Your task to perform on an android device: open a bookmark in the chrome app Image 0: 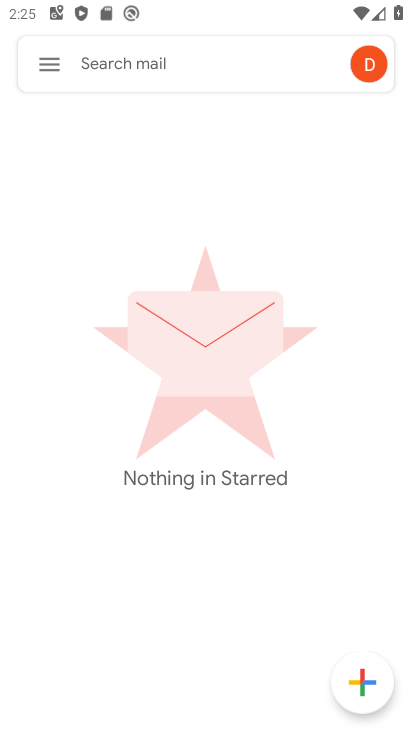
Step 0: press home button
Your task to perform on an android device: open a bookmark in the chrome app Image 1: 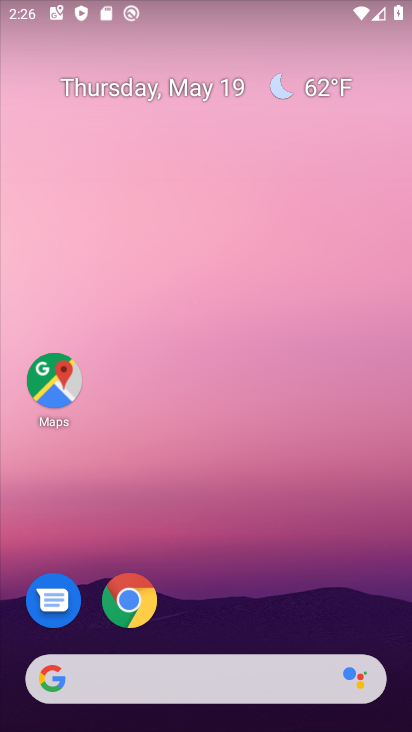
Step 1: click (125, 595)
Your task to perform on an android device: open a bookmark in the chrome app Image 2: 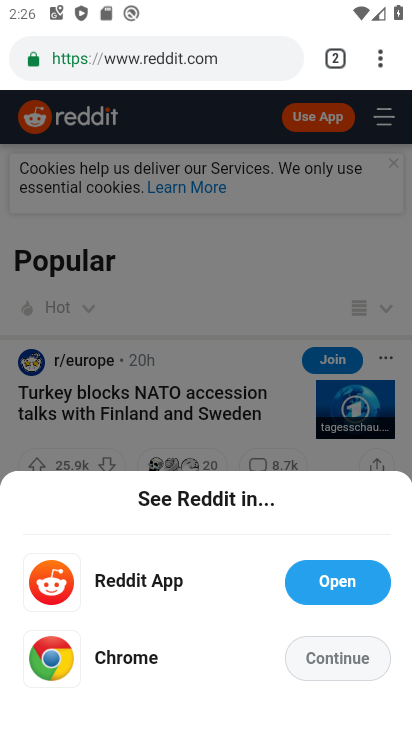
Step 2: click (376, 63)
Your task to perform on an android device: open a bookmark in the chrome app Image 3: 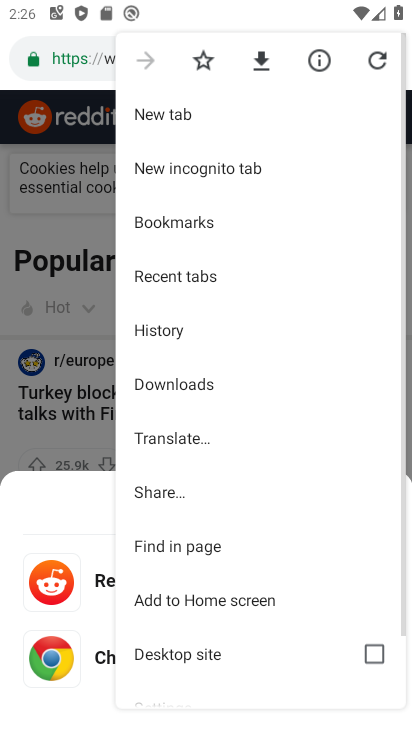
Step 3: click (212, 225)
Your task to perform on an android device: open a bookmark in the chrome app Image 4: 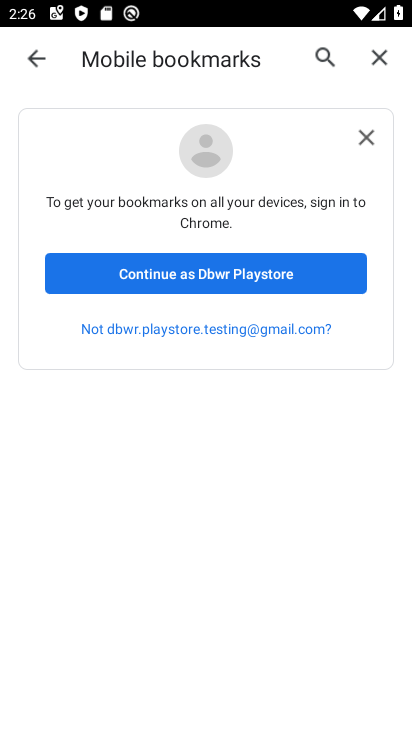
Step 4: click (356, 138)
Your task to perform on an android device: open a bookmark in the chrome app Image 5: 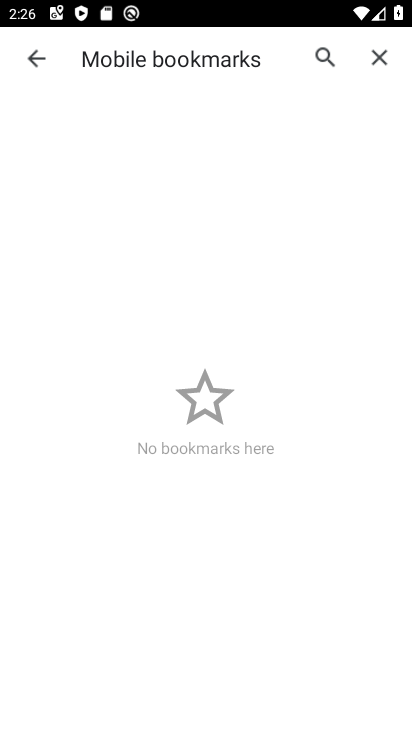
Step 5: task complete